Your task to perform on an android device: Open display settings Image 0: 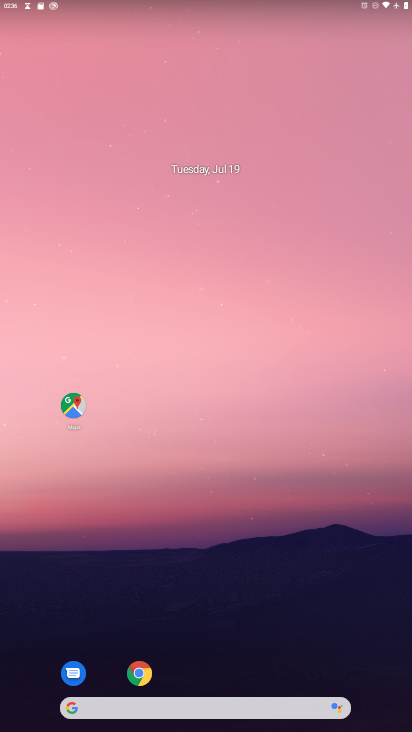
Step 0: drag from (190, 661) to (213, 252)
Your task to perform on an android device: Open display settings Image 1: 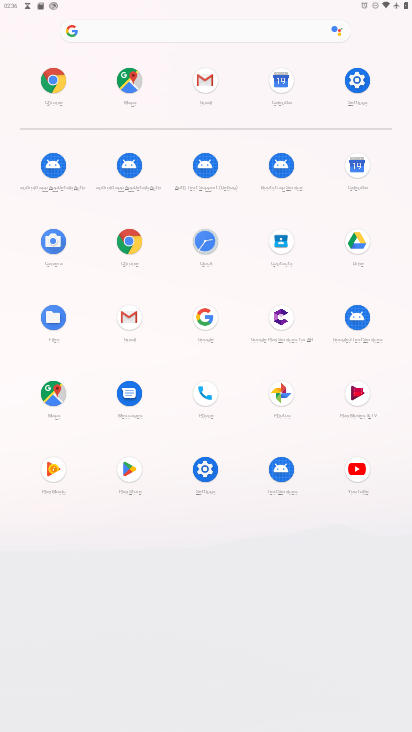
Step 1: click (352, 82)
Your task to perform on an android device: Open display settings Image 2: 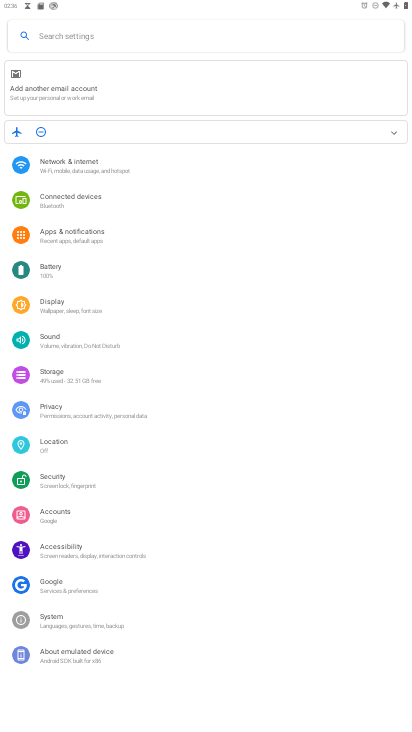
Step 2: click (60, 304)
Your task to perform on an android device: Open display settings Image 3: 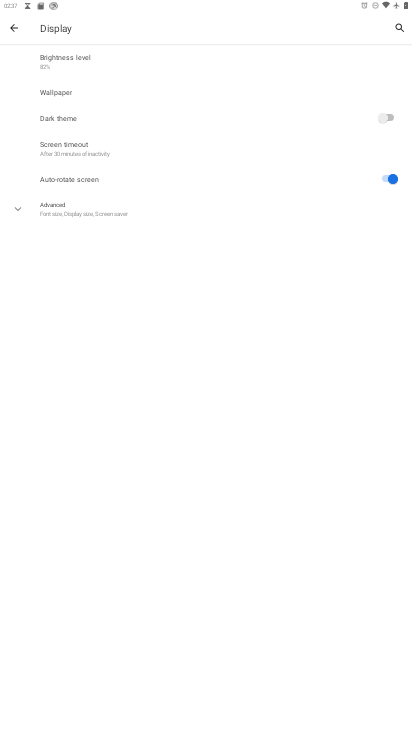
Step 3: task complete